Your task to perform on an android device: turn on notifications settings in the gmail app Image 0: 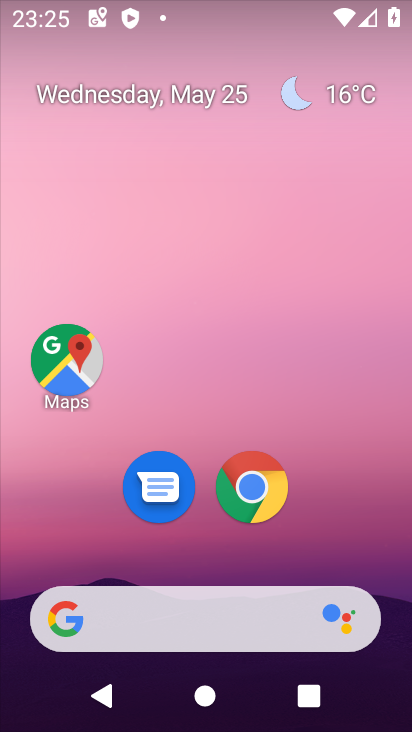
Step 0: drag from (213, 457) to (202, 49)
Your task to perform on an android device: turn on notifications settings in the gmail app Image 1: 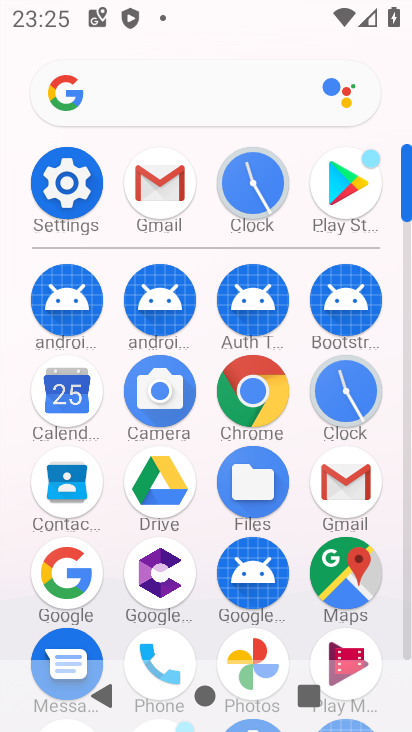
Step 1: click (158, 189)
Your task to perform on an android device: turn on notifications settings in the gmail app Image 2: 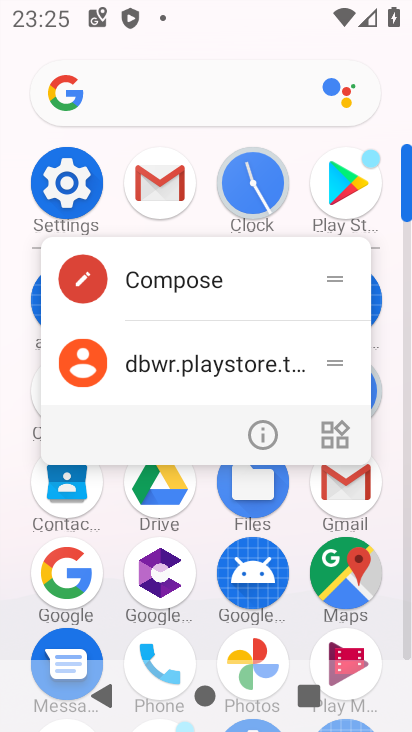
Step 2: click (255, 432)
Your task to perform on an android device: turn on notifications settings in the gmail app Image 3: 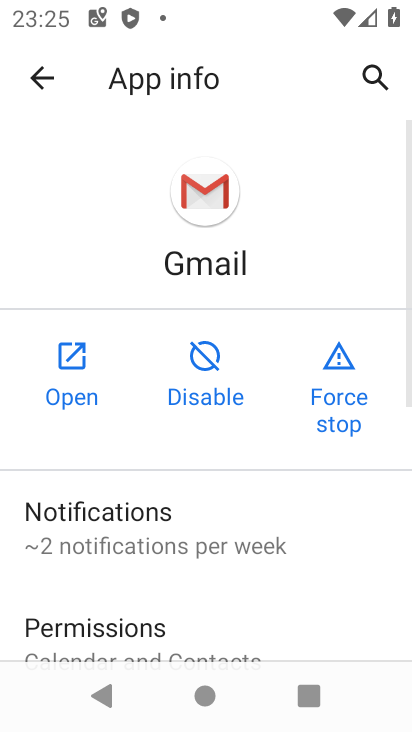
Step 3: drag from (247, 418) to (227, 139)
Your task to perform on an android device: turn on notifications settings in the gmail app Image 4: 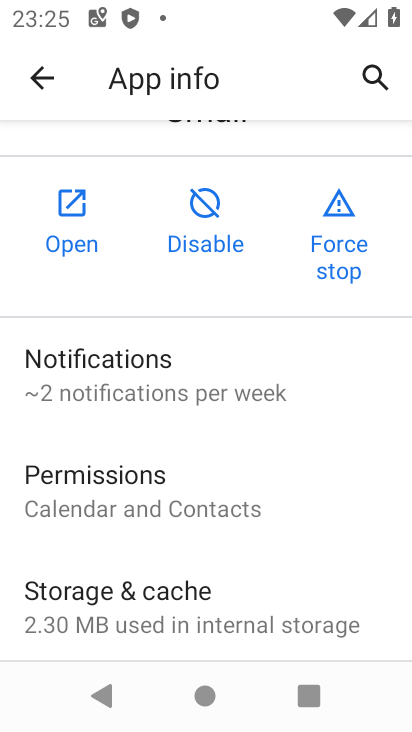
Step 4: click (122, 362)
Your task to perform on an android device: turn on notifications settings in the gmail app Image 5: 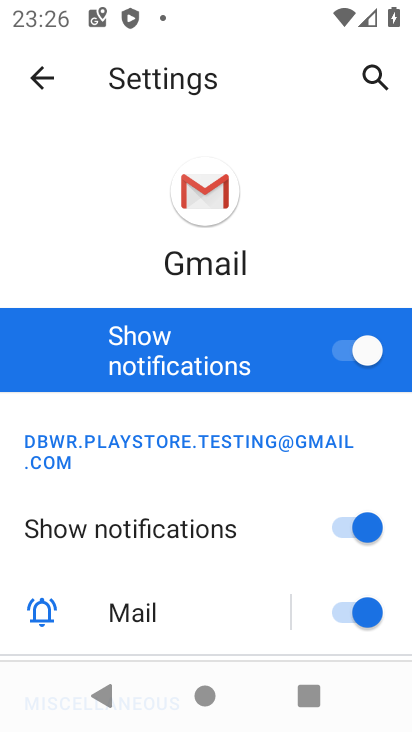
Step 5: task complete